Your task to perform on an android device: turn off improve location accuracy Image 0: 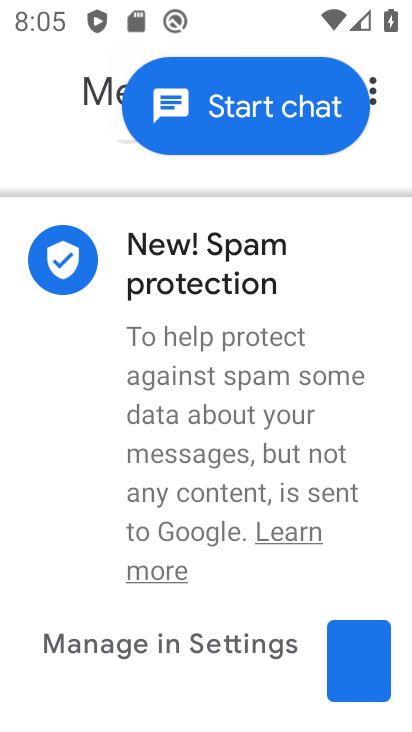
Step 0: press home button
Your task to perform on an android device: turn off improve location accuracy Image 1: 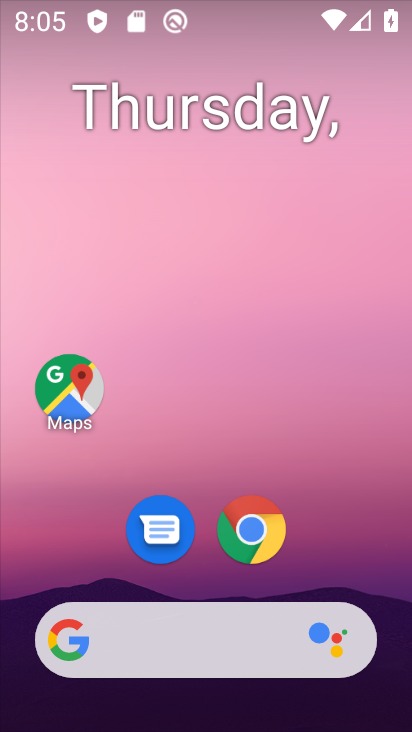
Step 1: drag from (144, 646) to (264, 138)
Your task to perform on an android device: turn off improve location accuracy Image 2: 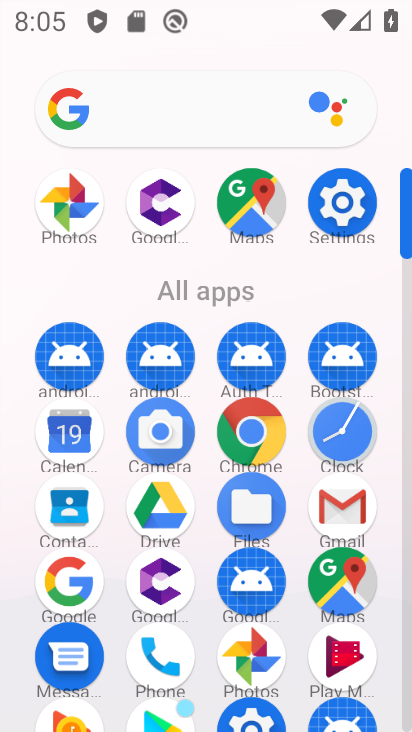
Step 2: click (352, 204)
Your task to perform on an android device: turn off improve location accuracy Image 3: 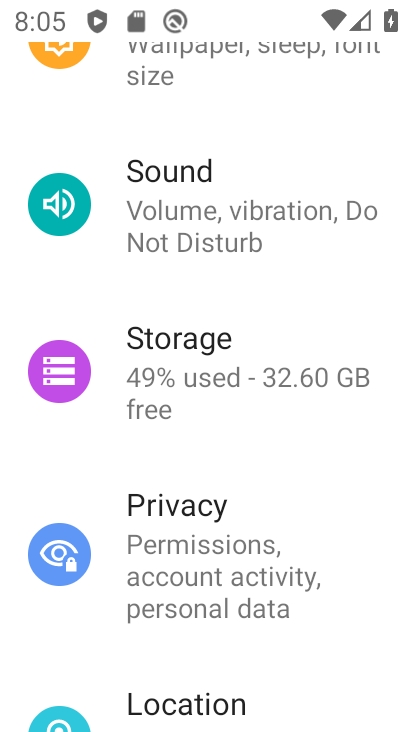
Step 3: drag from (227, 624) to (300, 124)
Your task to perform on an android device: turn off improve location accuracy Image 4: 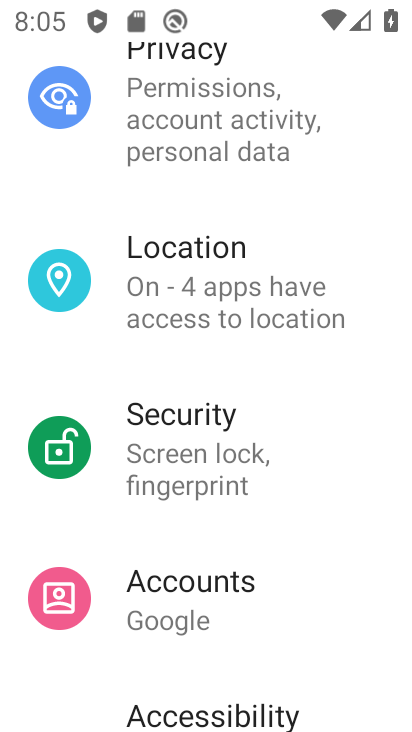
Step 4: click (230, 279)
Your task to perform on an android device: turn off improve location accuracy Image 5: 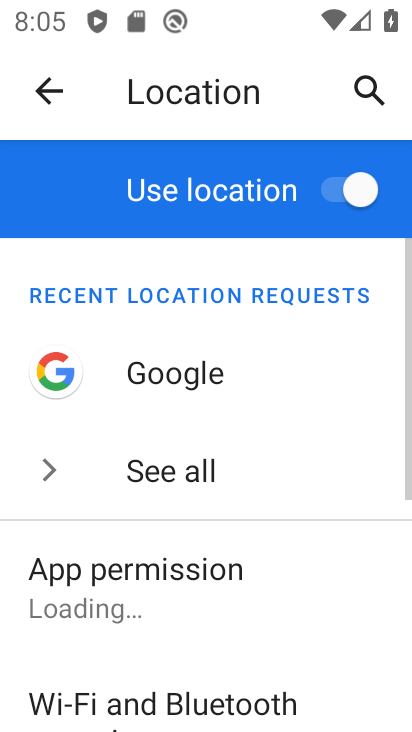
Step 5: drag from (250, 636) to (379, 91)
Your task to perform on an android device: turn off improve location accuracy Image 6: 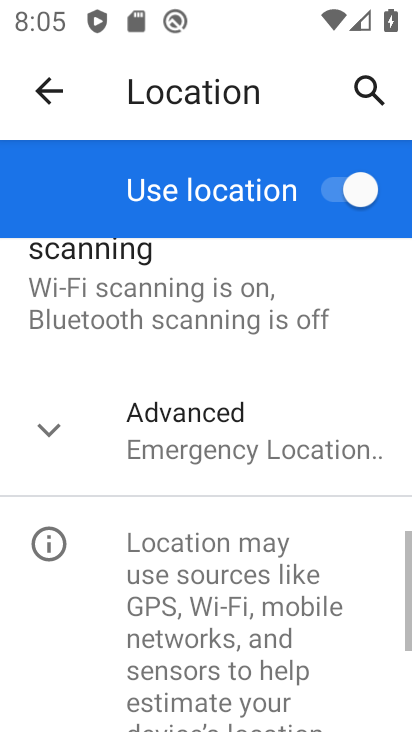
Step 6: click (225, 446)
Your task to perform on an android device: turn off improve location accuracy Image 7: 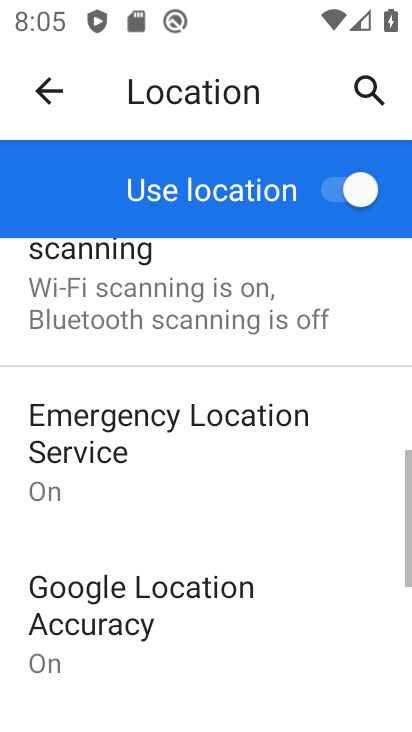
Step 7: drag from (265, 558) to (360, 284)
Your task to perform on an android device: turn off improve location accuracy Image 8: 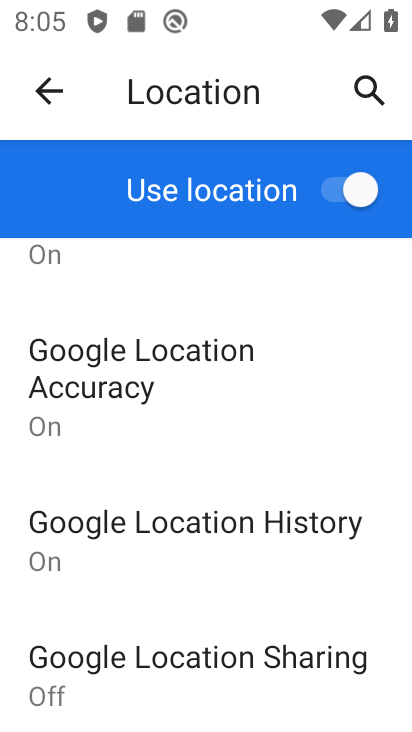
Step 8: click (167, 384)
Your task to perform on an android device: turn off improve location accuracy Image 9: 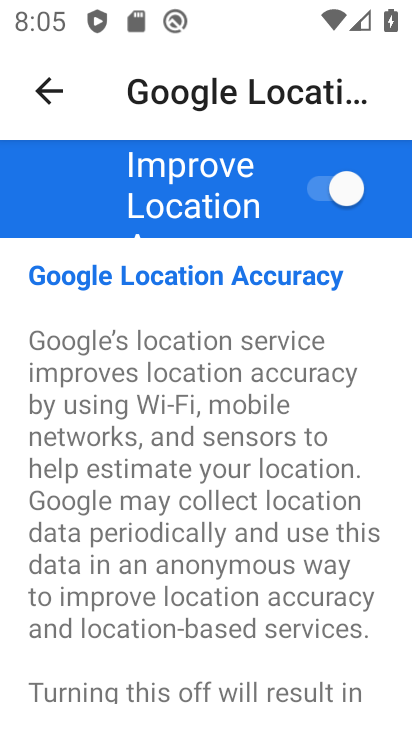
Step 9: click (325, 190)
Your task to perform on an android device: turn off improve location accuracy Image 10: 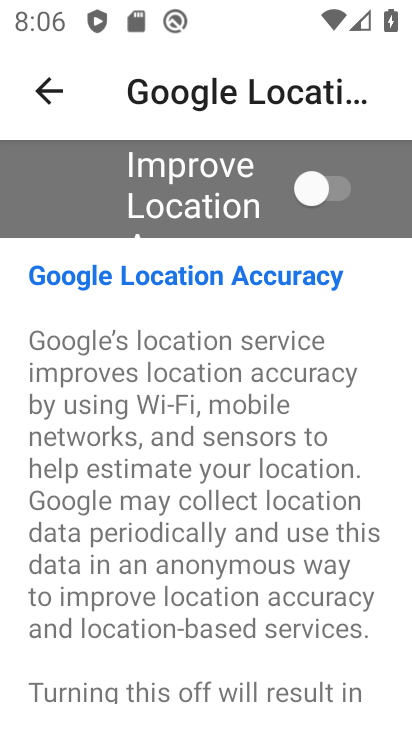
Step 10: task complete